Your task to perform on an android device: Go to Google Image 0: 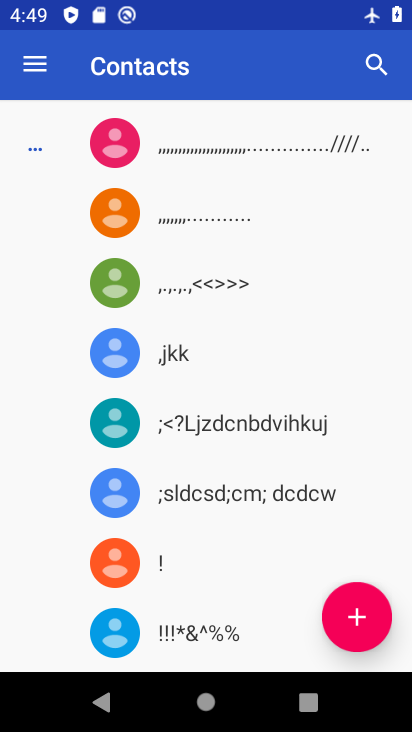
Step 0: press home button
Your task to perform on an android device: Go to Google Image 1: 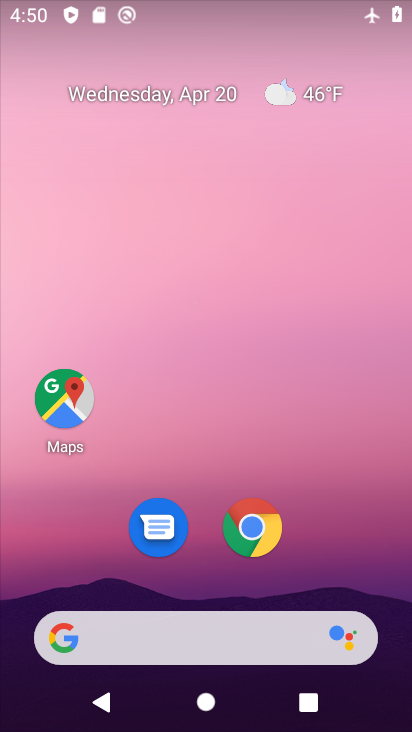
Step 1: drag from (178, 581) to (192, 308)
Your task to perform on an android device: Go to Google Image 2: 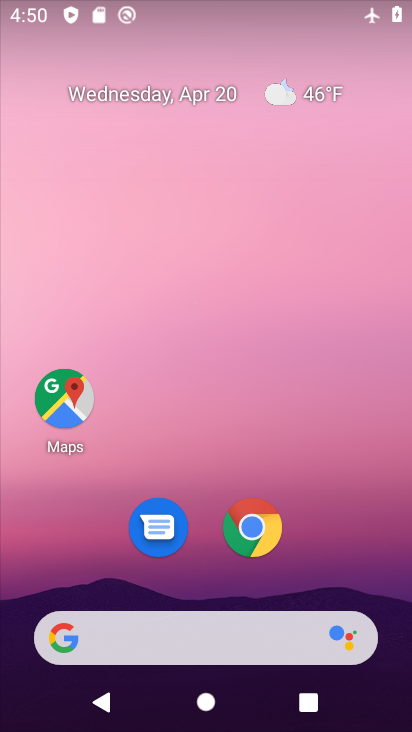
Step 2: drag from (189, 576) to (260, 84)
Your task to perform on an android device: Go to Google Image 3: 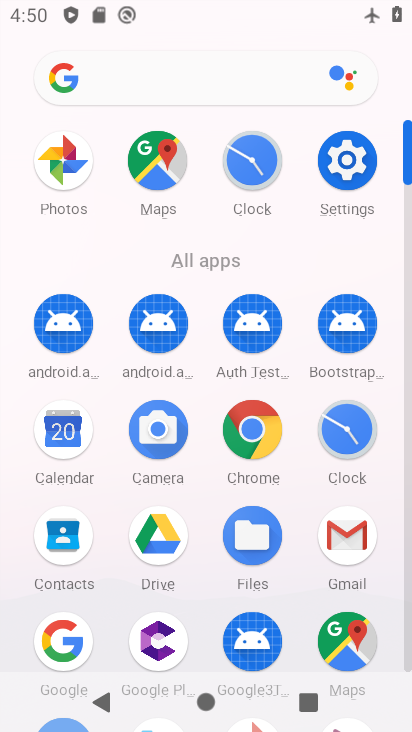
Step 3: click (65, 657)
Your task to perform on an android device: Go to Google Image 4: 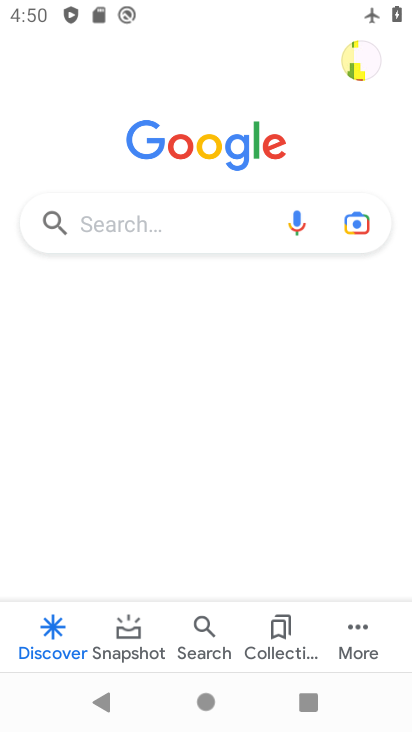
Step 4: task complete